Your task to perform on an android device: turn notification dots on Image 0: 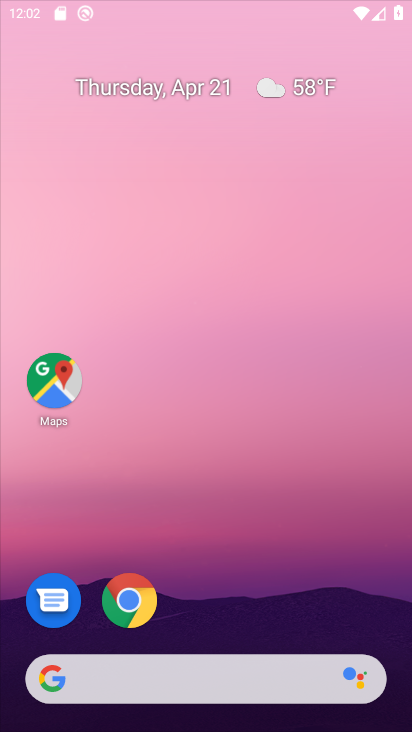
Step 0: drag from (330, 399) to (311, 87)
Your task to perform on an android device: turn notification dots on Image 1: 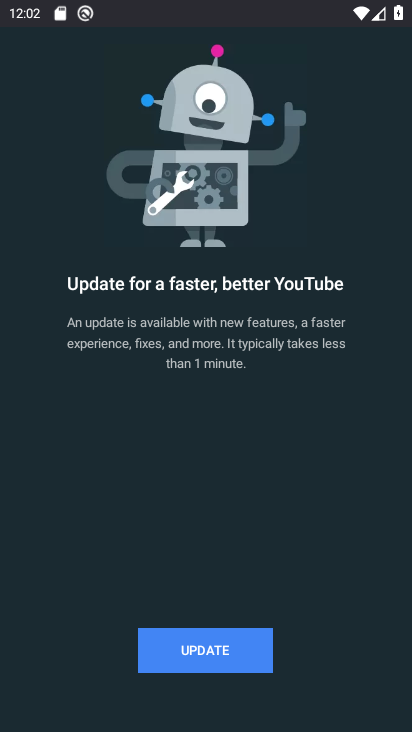
Step 1: press home button
Your task to perform on an android device: turn notification dots on Image 2: 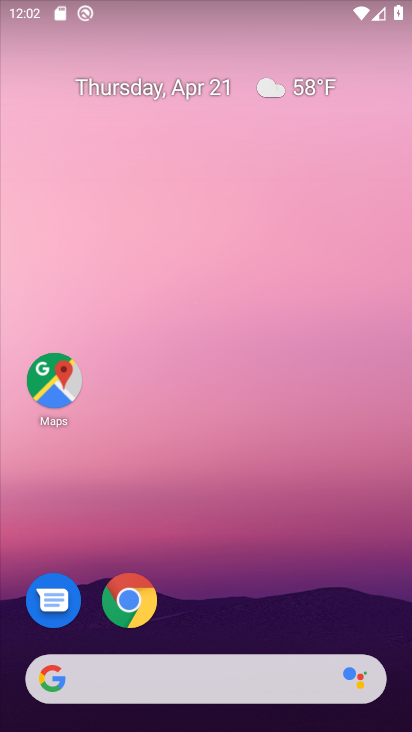
Step 2: drag from (301, 586) to (316, 99)
Your task to perform on an android device: turn notification dots on Image 3: 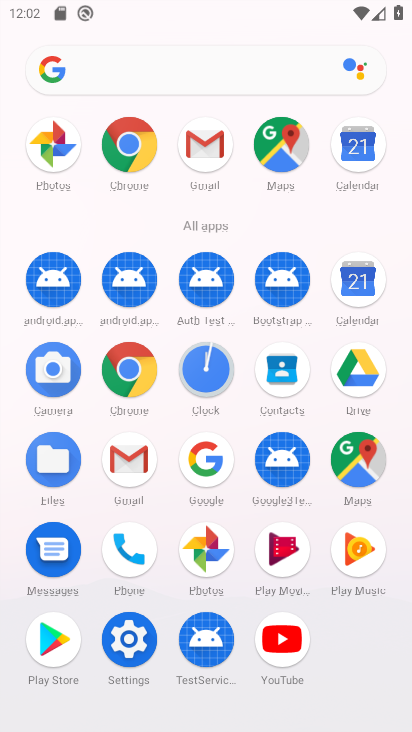
Step 3: click (133, 626)
Your task to perform on an android device: turn notification dots on Image 4: 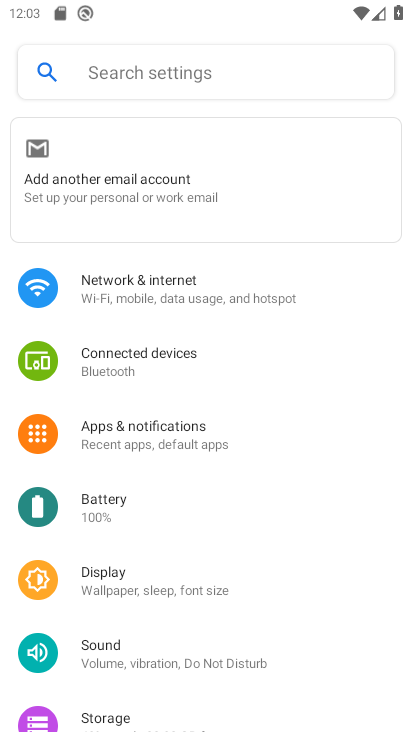
Step 4: click (228, 436)
Your task to perform on an android device: turn notification dots on Image 5: 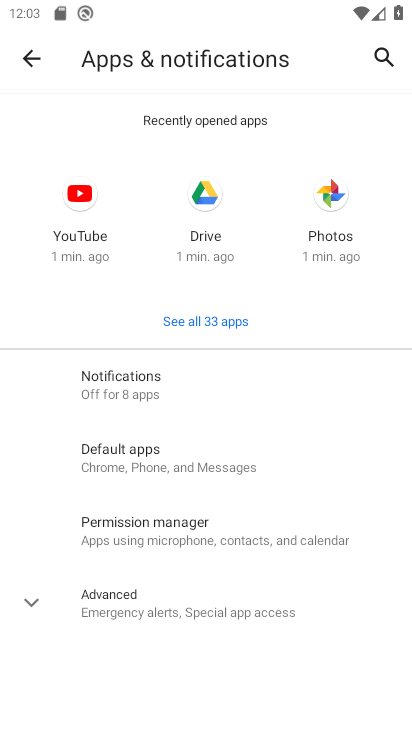
Step 5: click (164, 389)
Your task to perform on an android device: turn notification dots on Image 6: 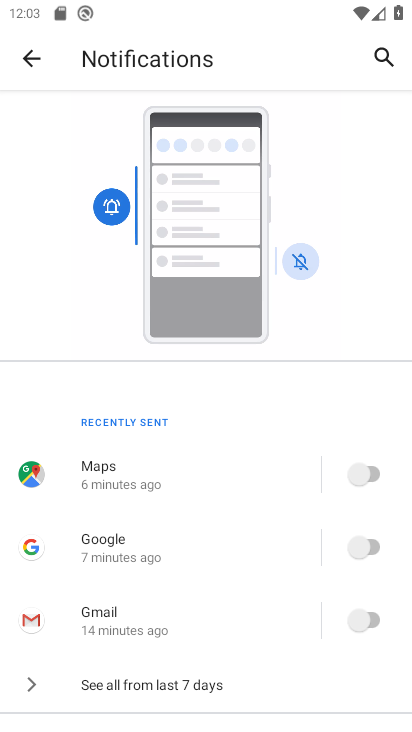
Step 6: drag from (218, 638) to (265, 267)
Your task to perform on an android device: turn notification dots on Image 7: 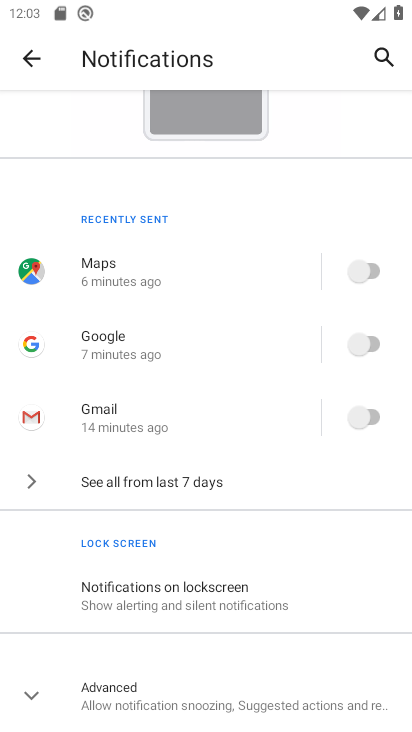
Step 7: click (30, 694)
Your task to perform on an android device: turn notification dots on Image 8: 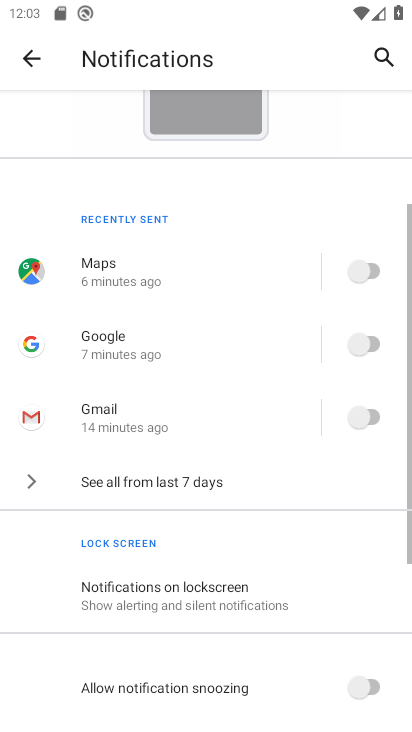
Step 8: task complete